Your task to perform on an android device: Open Google Chrome and click the shortcut for Amazon.com Image 0: 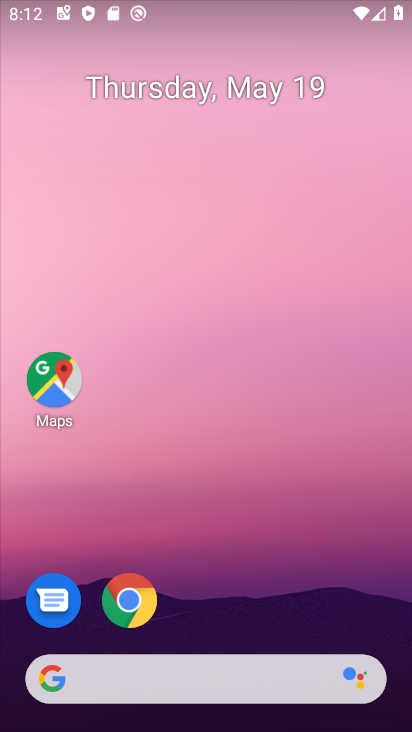
Step 0: click (120, 604)
Your task to perform on an android device: Open Google Chrome and click the shortcut for Amazon.com Image 1: 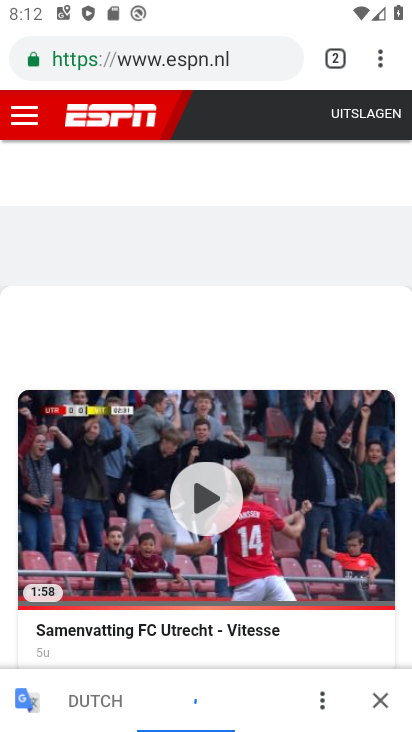
Step 1: click (380, 61)
Your task to perform on an android device: Open Google Chrome and click the shortcut for Amazon.com Image 2: 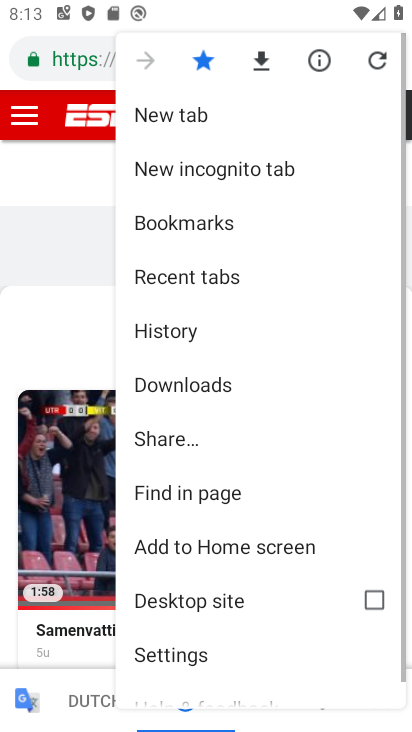
Step 2: click (158, 115)
Your task to perform on an android device: Open Google Chrome and click the shortcut for Amazon.com Image 3: 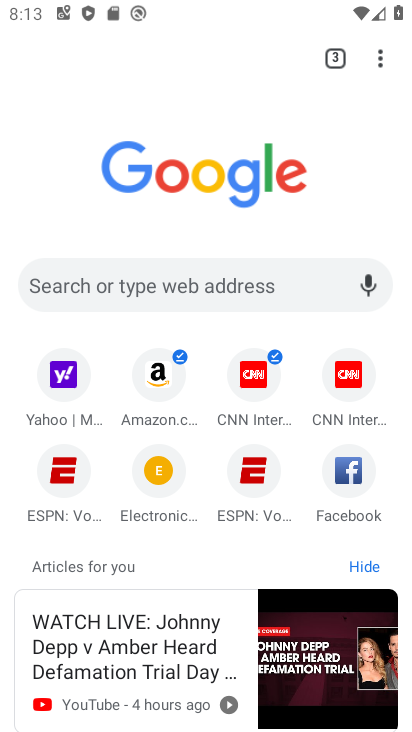
Step 3: click (155, 379)
Your task to perform on an android device: Open Google Chrome and click the shortcut for Amazon.com Image 4: 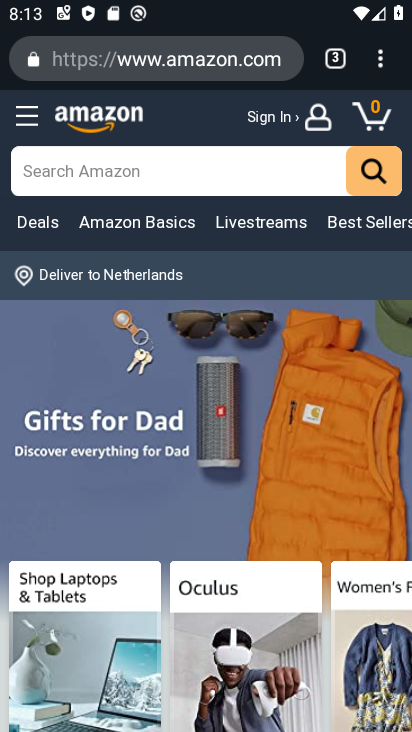
Step 4: task complete